Your task to perform on an android device: Go to location settings Image 0: 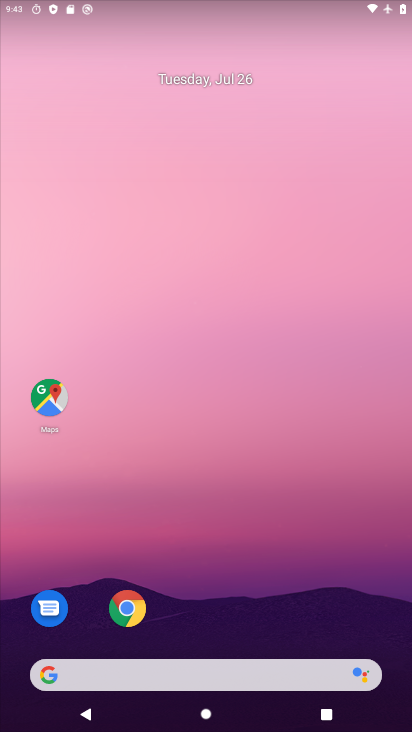
Step 0: drag from (249, 634) to (259, 209)
Your task to perform on an android device: Go to location settings Image 1: 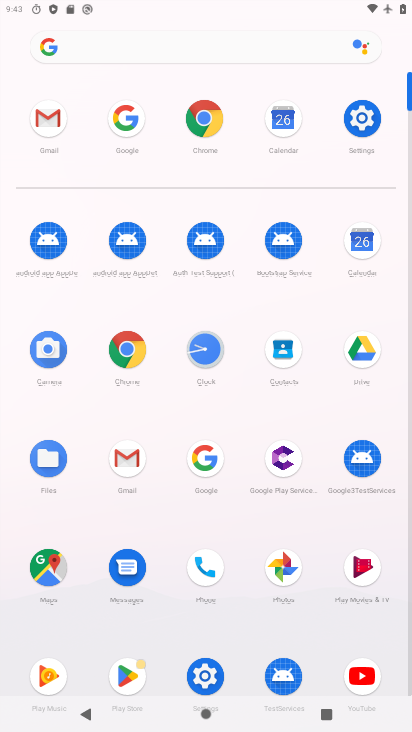
Step 1: click (342, 117)
Your task to perform on an android device: Go to location settings Image 2: 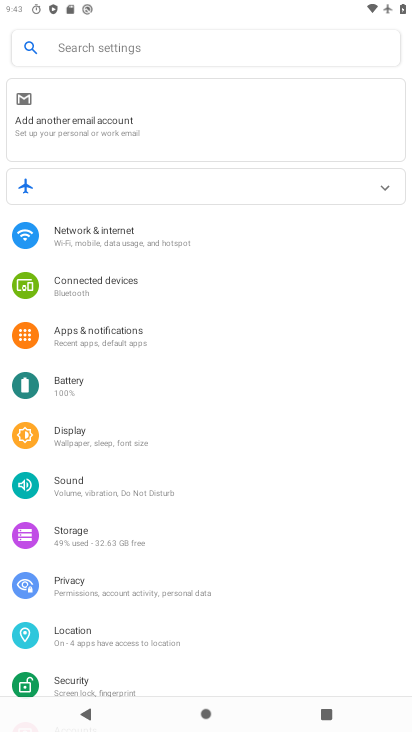
Step 2: click (129, 622)
Your task to perform on an android device: Go to location settings Image 3: 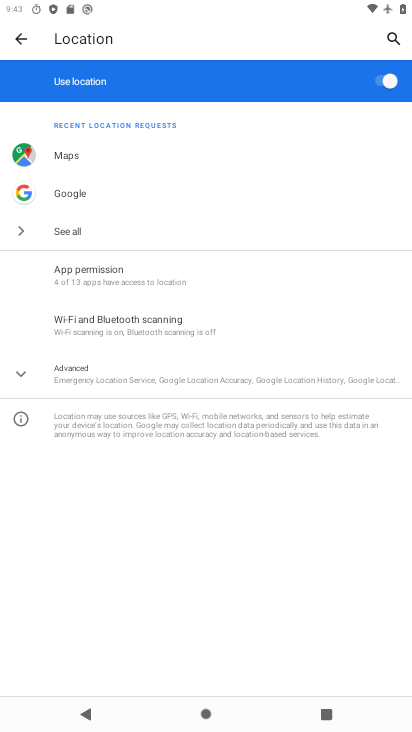
Step 3: task complete